Your task to perform on an android device: Show me productivity apps on the Play Store Image 0: 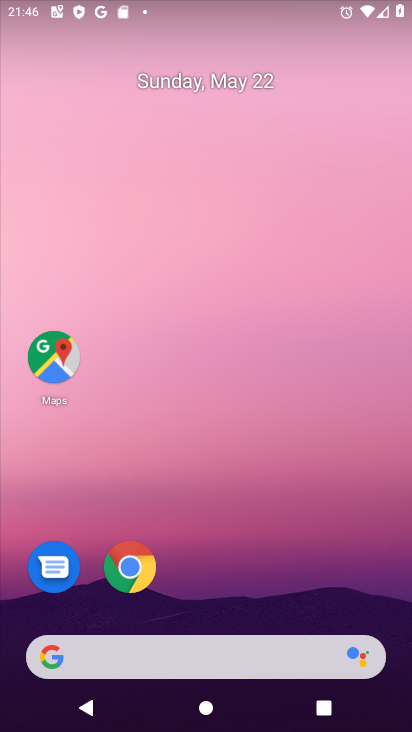
Step 0: drag from (215, 595) to (264, 51)
Your task to perform on an android device: Show me productivity apps on the Play Store Image 1: 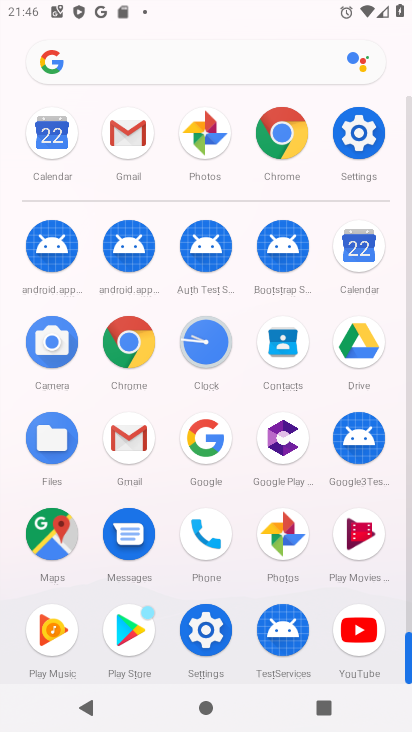
Step 1: click (132, 632)
Your task to perform on an android device: Show me productivity apps on the Play Store Image 2: 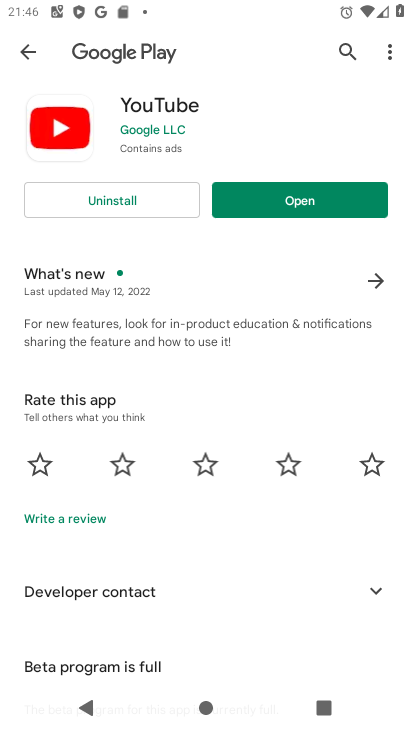
Step 2: click (27, 45)
Your task to perform on an android device: Show me productivity apps on the Play Store Image 3: 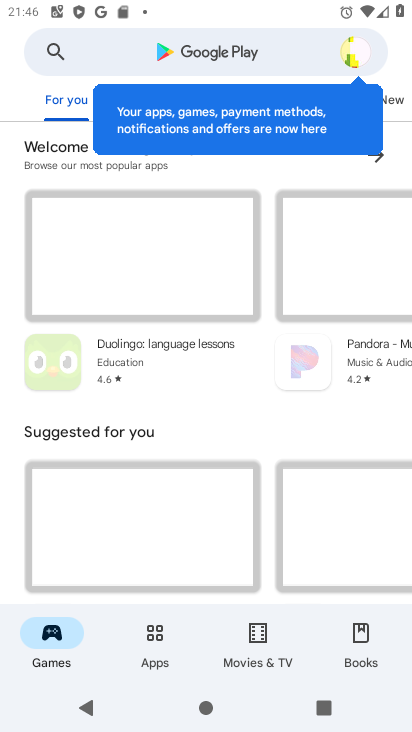
Step 3: click (146, 655)
Your task to perform on an android device: Show me productivity apps on the Play Store Image 4: 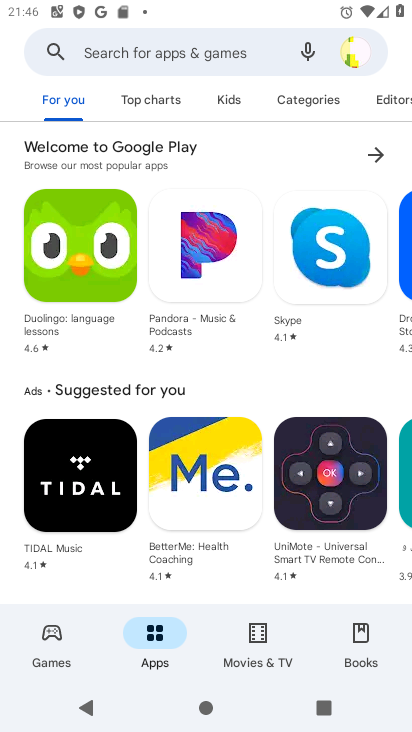
Step 4: click (328, 100)
Your task to perform on an android device: Show me productivity apps on the Play Store Image 5: 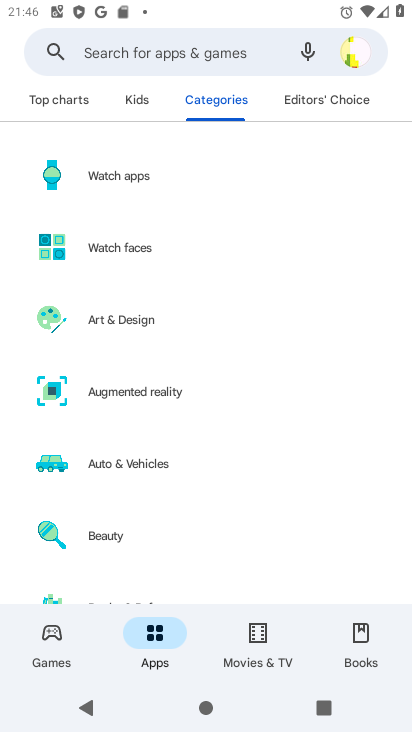
Step 5: drag from (155, 538) to (164, 68)
Your task to perform on an android device: Show me productivity apps on the Play Store Image 6: 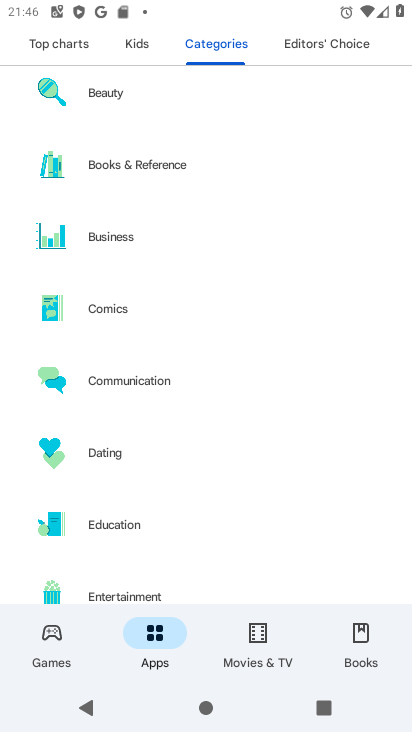
Step 6: drag from (151, 536) to (168, 53)
Your task to perform on an android device: Show me productivity apps on the Play Store Image 7: 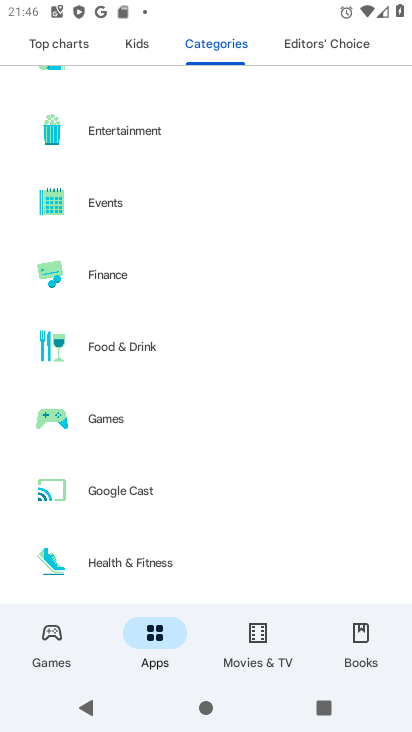
Step 7: drag from (118, 513) to (133, 256)
Your task to perform on an android device: Show me productivity apps on the Play Store Image 8: 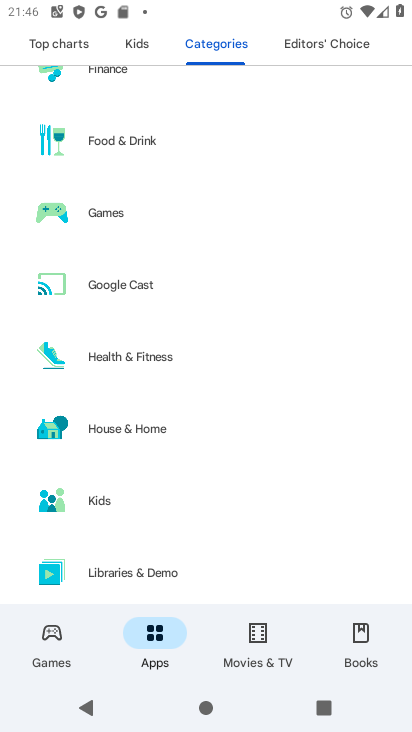
Step 8: drag from (166, 503) to (172, 177)
Your task to perform on an android device: Show me productivity apps on the Play Store Image 9: 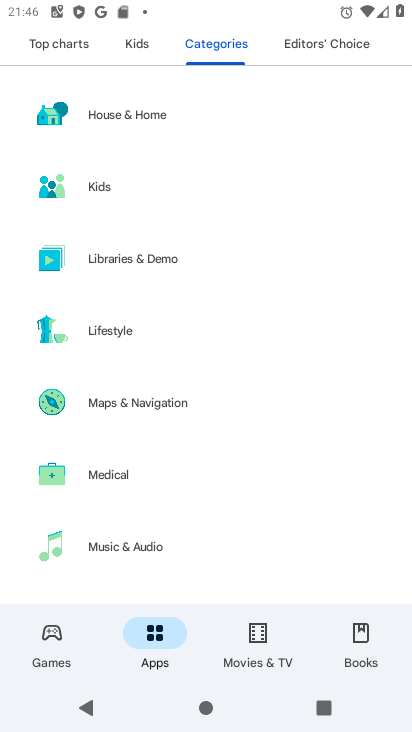
Step 9: drag from (130, 470) to (166, 20)
Your task to perform on an android device: Show me productivity apps on the Play Store Image 10: 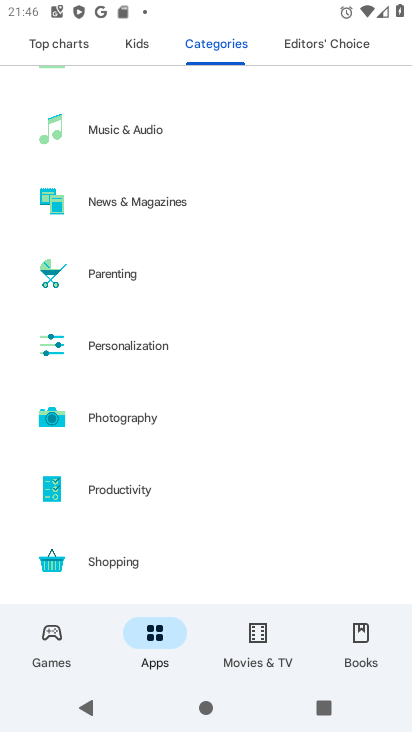
Step 10: click (140, 492)
Your task to perform on an android device: Show me productivity apps on the Play Store Image 11: 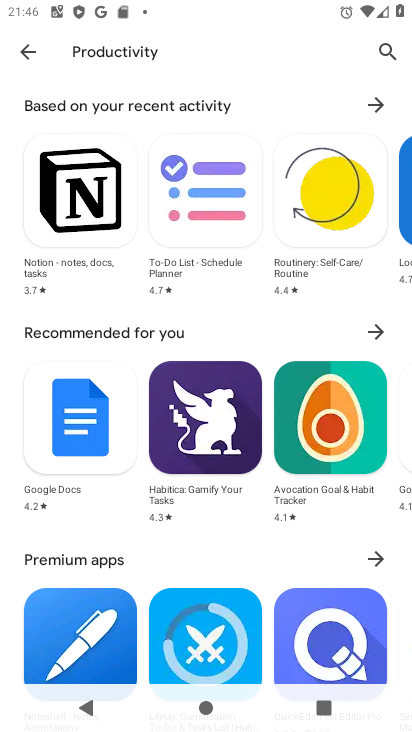
Step 11: task complete